Your task to perform on an android device: turn pop-ups off in chrome Image 0: 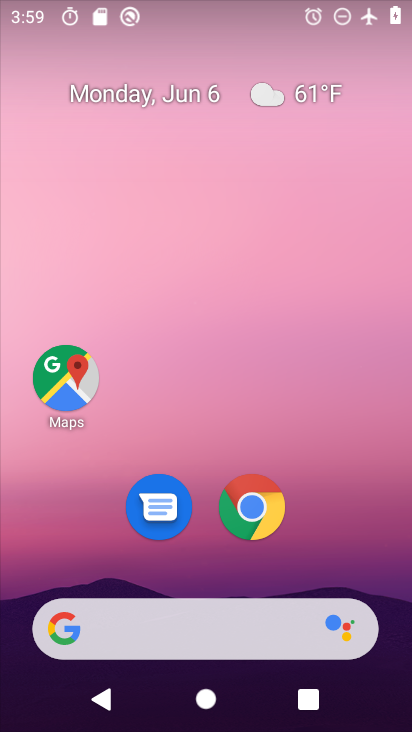
Step 0: click (253, 496)
Your task to perform on an android device: turn pop-ups off in chrome Image 1: 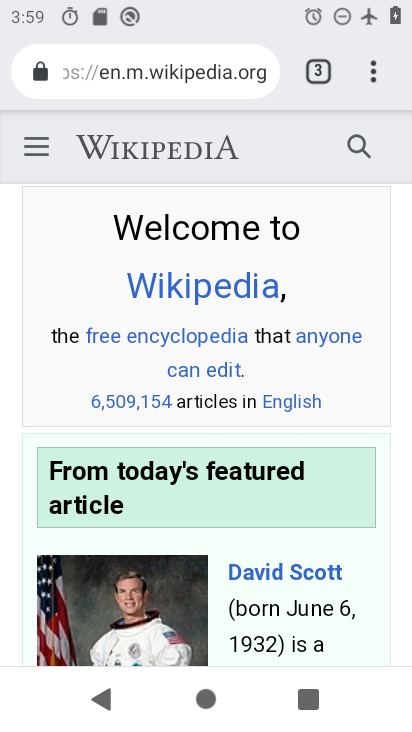
Step 1: click (368, 71)
Your task to perform on an android device: turn pop-ups off in chrome Image 2: 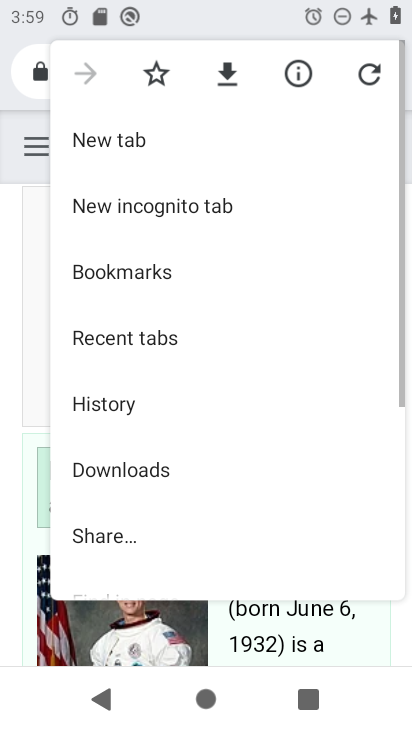
Step 2: drag from (183, 481) to (243, 194)
Your task to perform on an android device: turn pop-ups off in chrome Image 3: 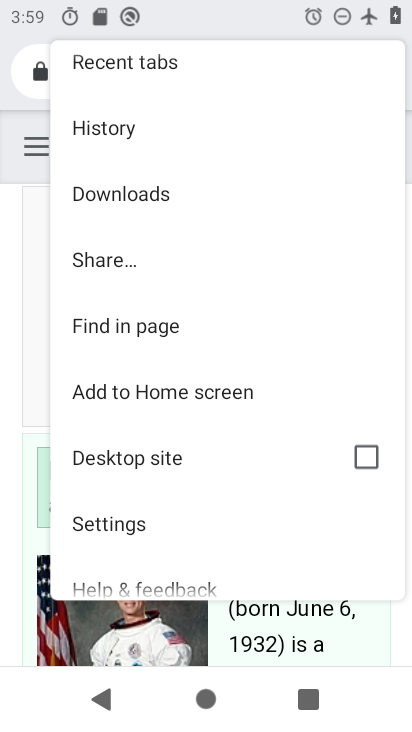
Step 3: click (131, 525)
Your task to perform on an android device: turn pop-ups off in chrome Image 4: 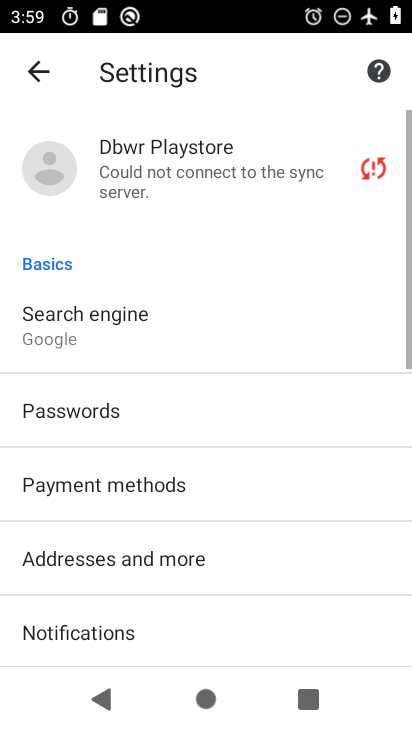
Step 4: drag from (234, 573) to (235, 286)
Your task to perform on an android device: turn pop-ups off in chrome Image 5: 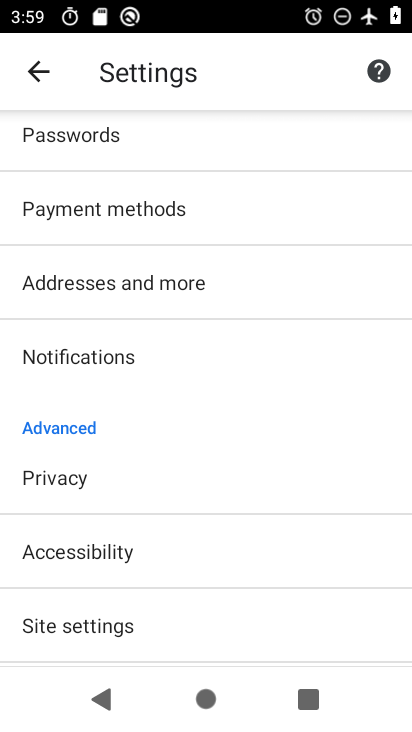
Step 5: drag from (133, 586) to (191, 324)
Your task to perform on an android device: turn pop-ups off in chrome Image 6: 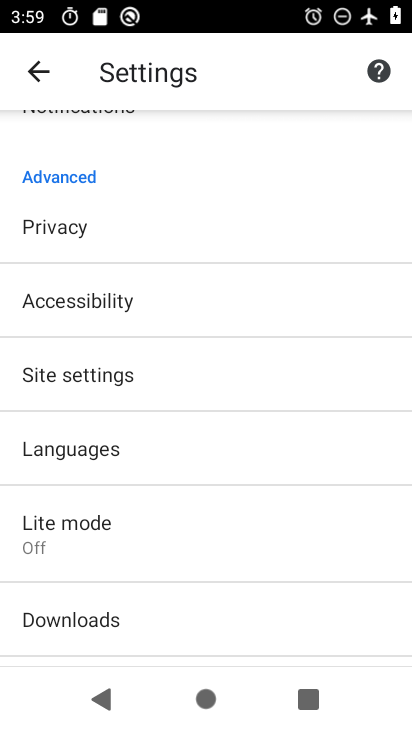
Step 6: click (137, 380)
Your task to perform on an android device: turn pop-ups off in chrome Image 7: 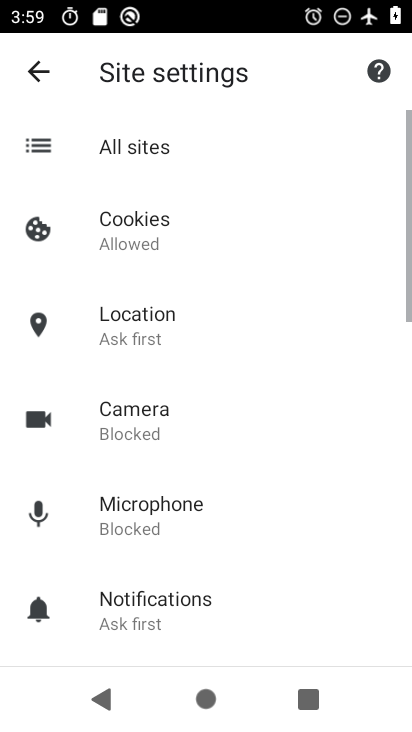
Step 7: drag from (231, 598) to (270, 274)
Your task to perform on an android device: turn pop-ups off in chrome Image 8: 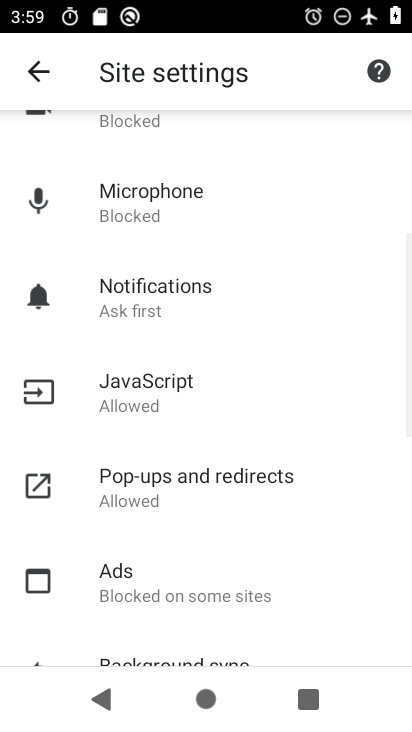
Step 8: click (198, 470)
Your task to perform on an android device: turn pop-ups off in chrome Image 9: 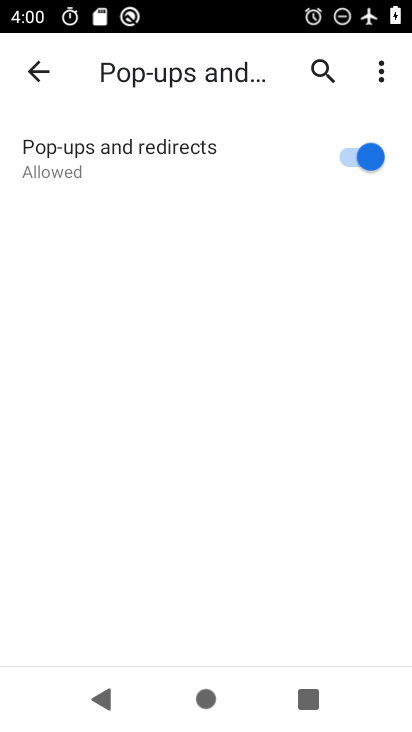
Step 9: click (340, 171)
Your task to perform on an android device: turn pop-ups off in chrome Image 10: 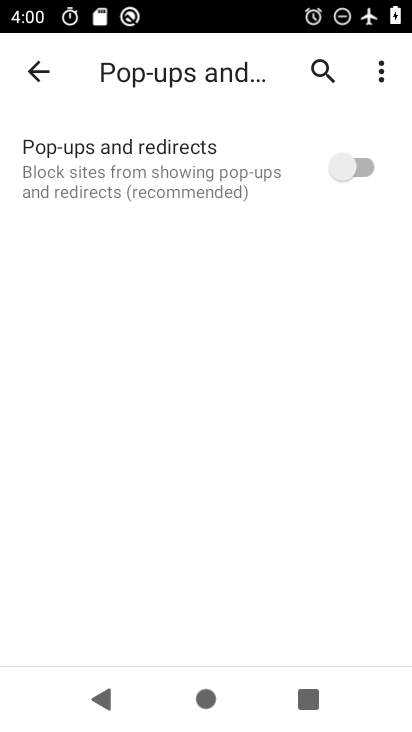
Step 10: task complete